Your task to perform on an android device: change alarm snooze length Image 0: 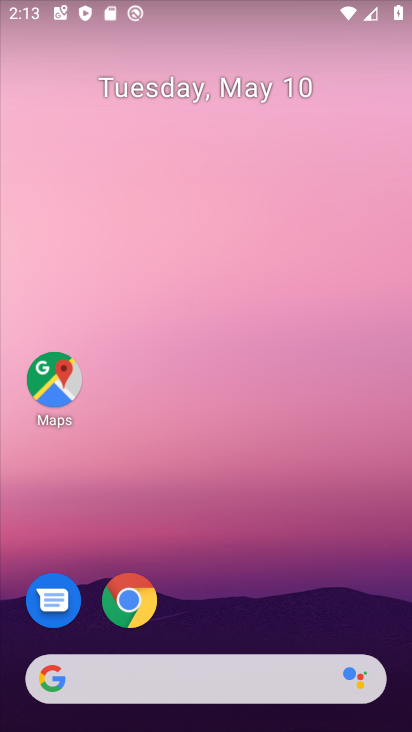
Step 0: click (260, 105)
Your task to perform on an android device: change alarm snooze length Image 1: 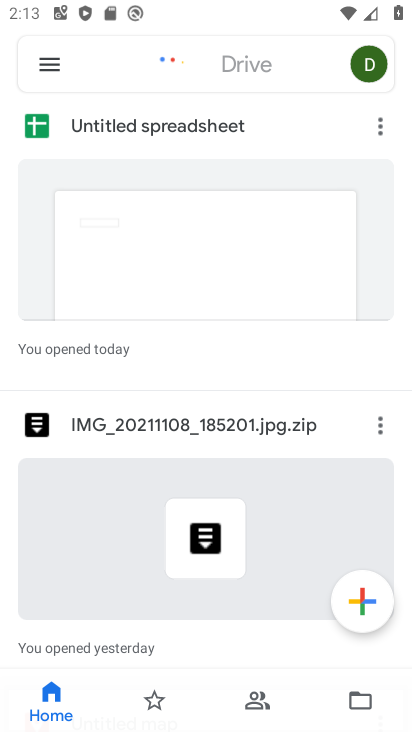
Step 1: press home button
Your task to perform on an android device: change alarm snooze length Image 2: 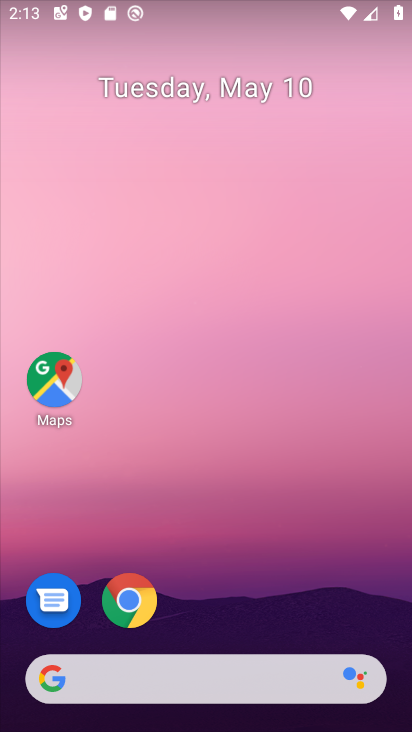
Step 2: drag from (176, 652) to (185, 179)
Your task to perform on an android device: change alarm snooze length Image 3: 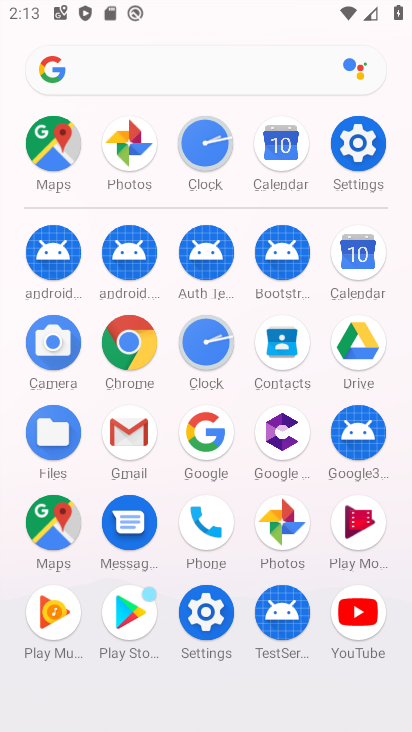
Step 3: click (208, 346)
Your task to perform on an android device: change alarm snooze length Image 4: 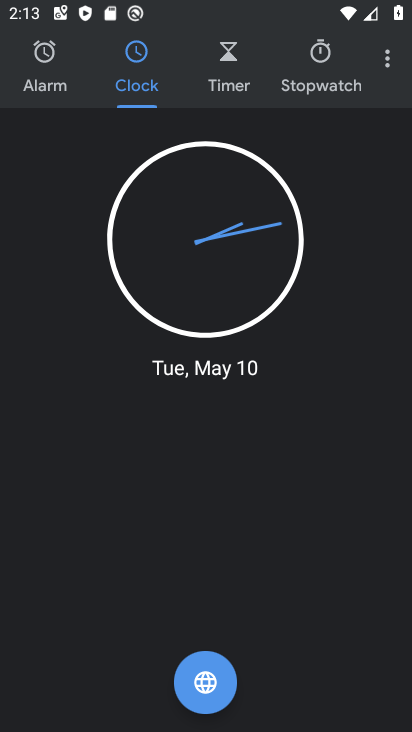
Step 4: click (383, 74)
Your task to perform on an android device: change alarm snooze length Image 5: 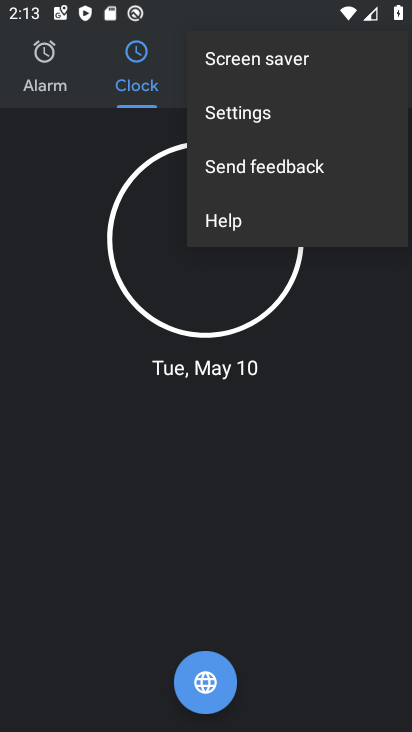
Step 5: click (264, 118)
Your task to perform on an android device: change alarm snooze length Image 6: 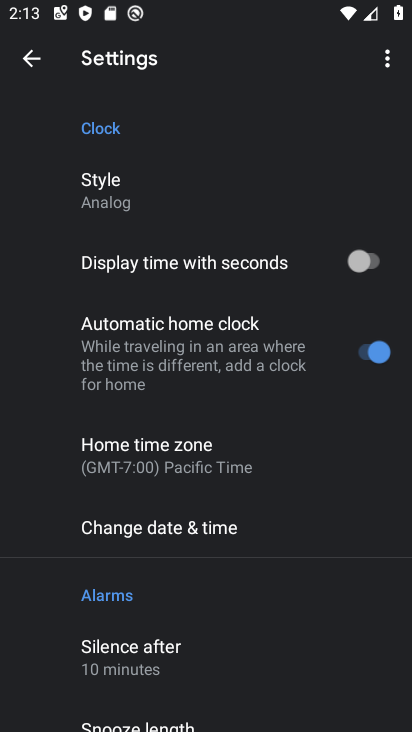
Step 6: drag from (201, 537) to (234, 214)
Your task to perform on an android device: change alarm snooze length Image 7: 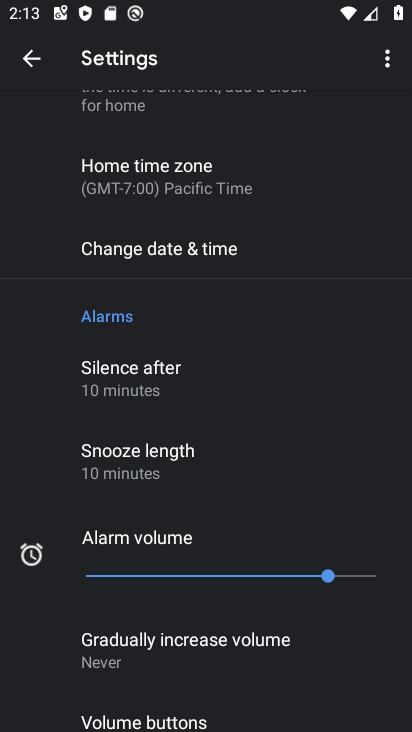
Step 7: drag from (180, 466) to (230, 125)
Your task to perform on an android device: change alarm snooze length Image 8: 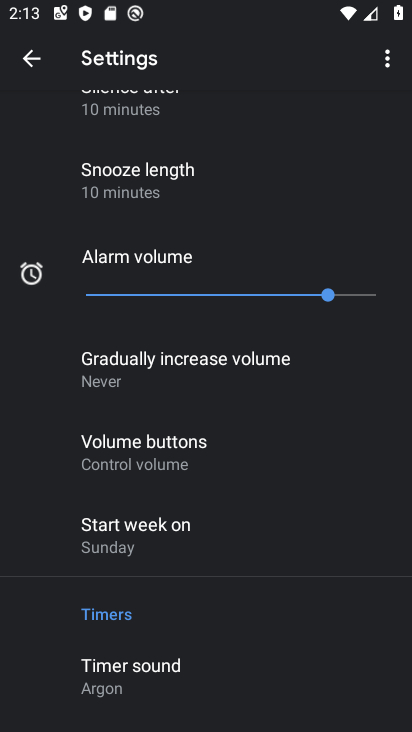
Step 8: drag from (170, 663) to (217, 344)
Your task to perform on an android device: change alarm snooze length Image 9: 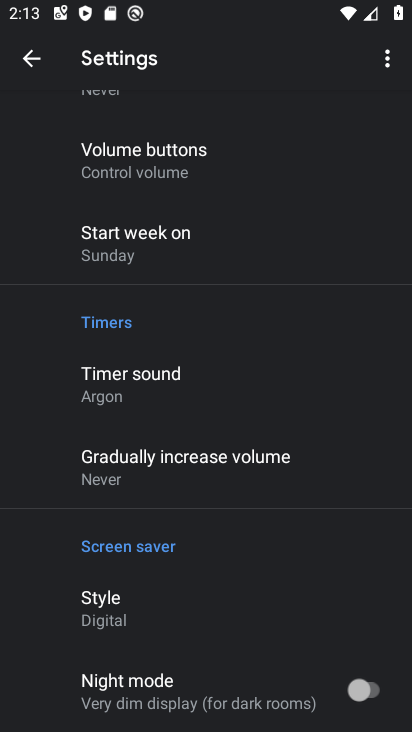
Step 9: drag from (224, 263) to (208, 642)
Your task to perform on an android device: change alarm snooze length Image 10: 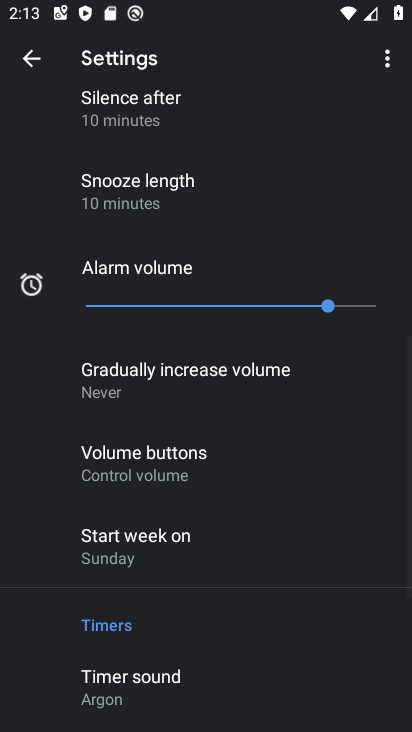
Step 10: drag from (209, 294) to (196, 571)
Your task to perform on an android device: change alarm snooze length Image 11: 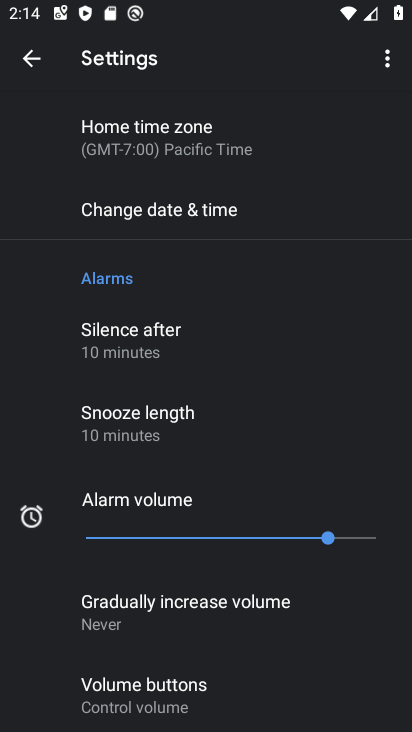
Step 11: click (180, 425)
Your task to perform on an android device: change alarm snooze length Image 12: 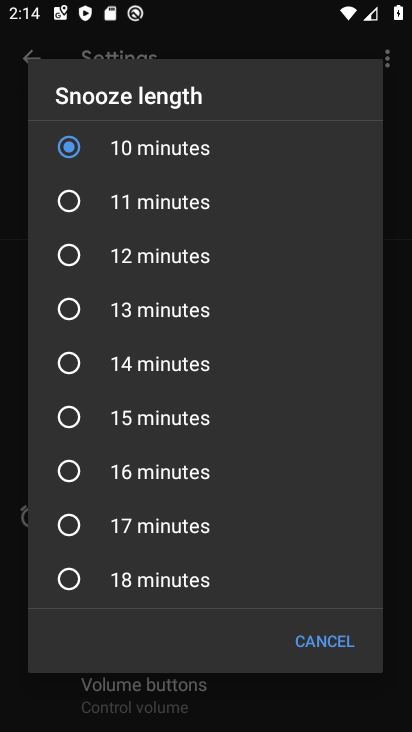
Step 12: click (74, 247)
Your task to perform on an android device: change alarm snooze length Image 13: 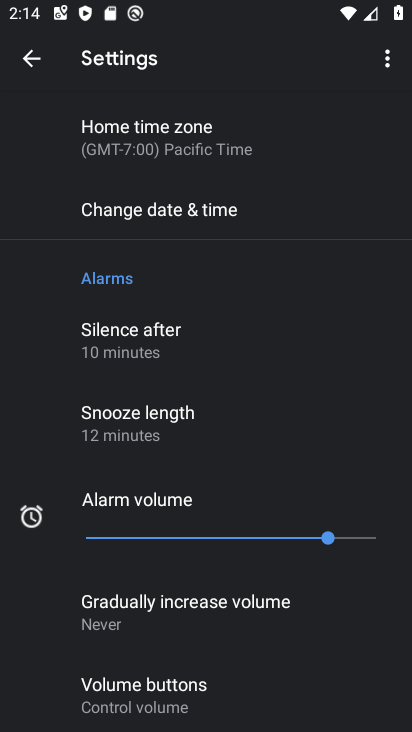
Step 13: task complete